Your task to perform on an android device: Open Chrome and go to settings Image 0: 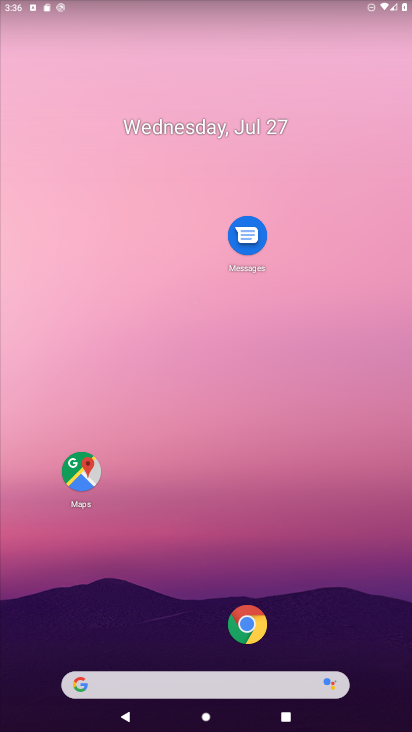
Step 0: click (242, 632)
Your task to perform on an android device: Open Chrome and go to settings Image 1: 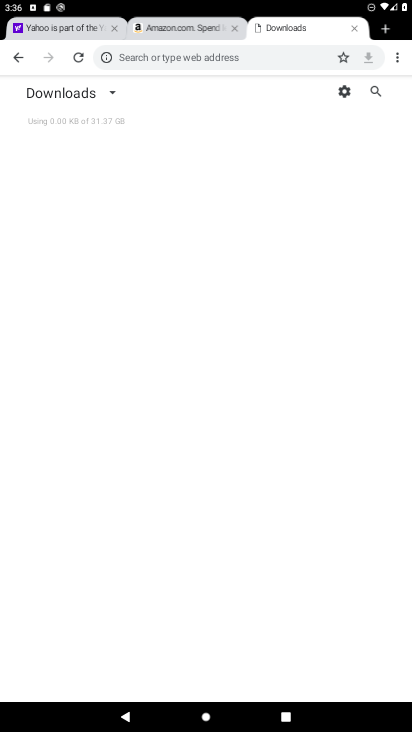
Step 1: click (401, 63)
Your task to perform on an android device: Open Chrome and go to settings Image 2: 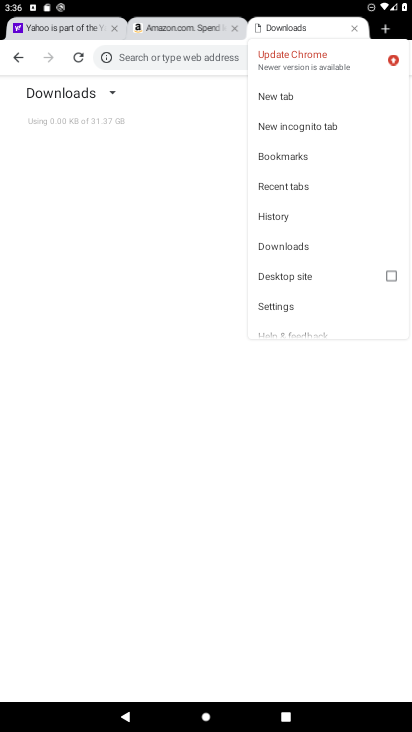
Step 2: click (295, 299)
Your task to perform on an android device: Open Chrome and go to settings Image 3: 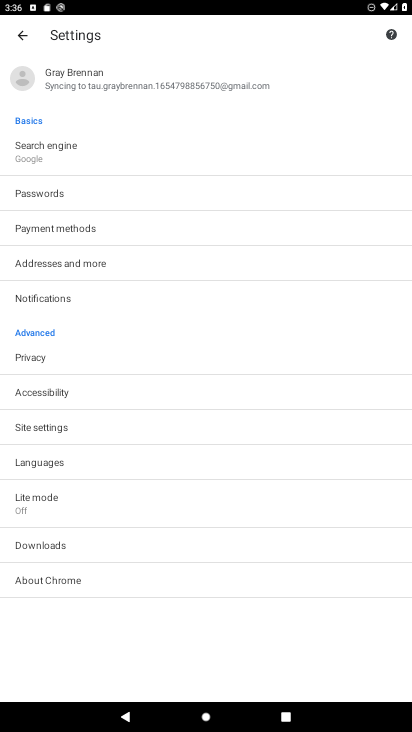
Step 3: task complete